Your task to perform on an android device: turn off notifications settings in the gmail app Image 0: 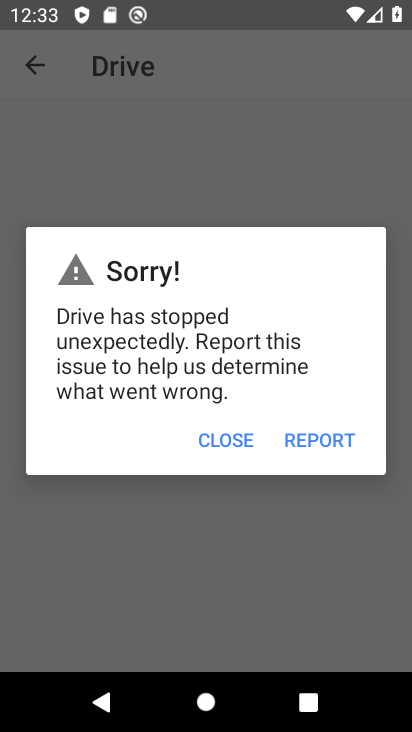
Step 0: press home button
Your task to perform on an android device: turn off notifications settings in the gmail app Image 1: 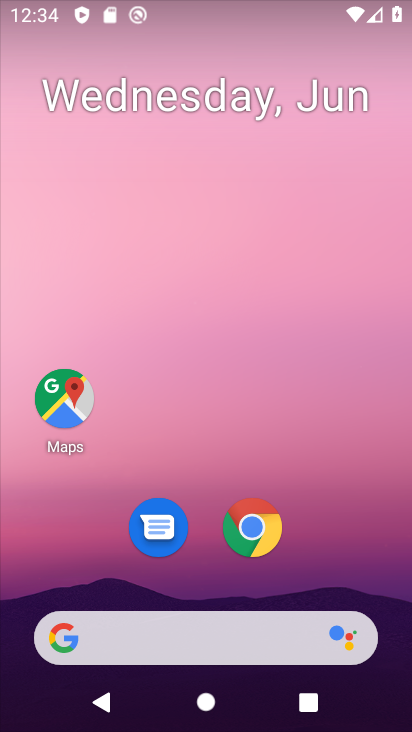
Step 1: drag from (191, 623) to (158, 104)
Your task to perform on an android device: turn off notifications settings in the gmail app Image 2: 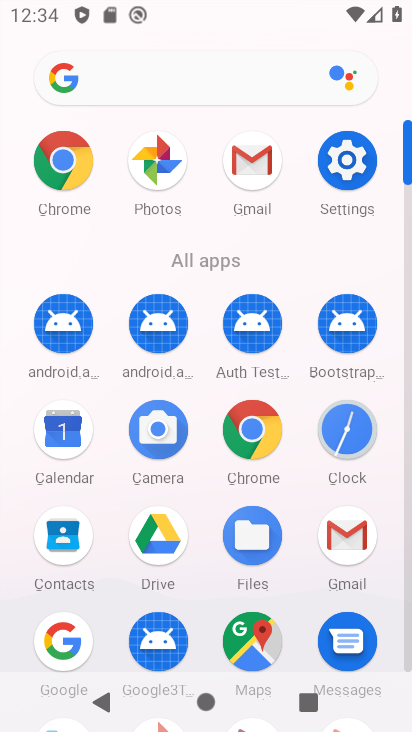
Step 2: click (253, 149)
Your task to perform on an android device: turn off notifications settings in the gmail app Image 3: 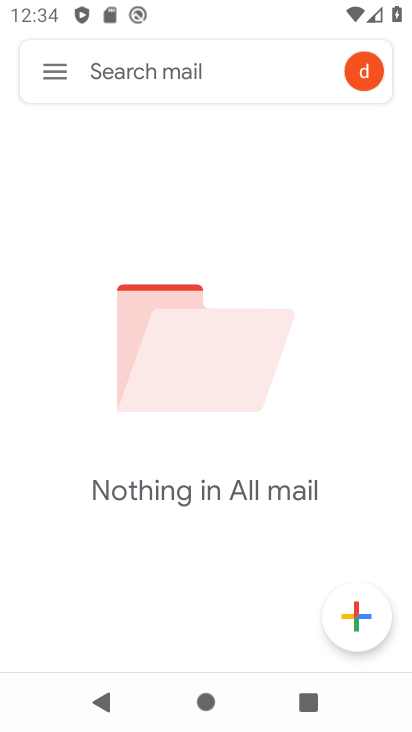
Step 3: click (48, 83)
Your task to perform on an android device: turn off notifications settings in the gmail app Image 4: 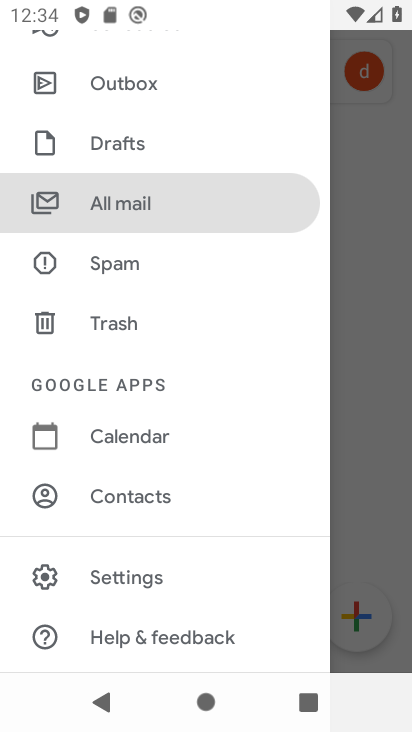
Step 4: click (126, 567)
Your task to perform on an android device: turn off notifications settings in the gmail app Image 5: 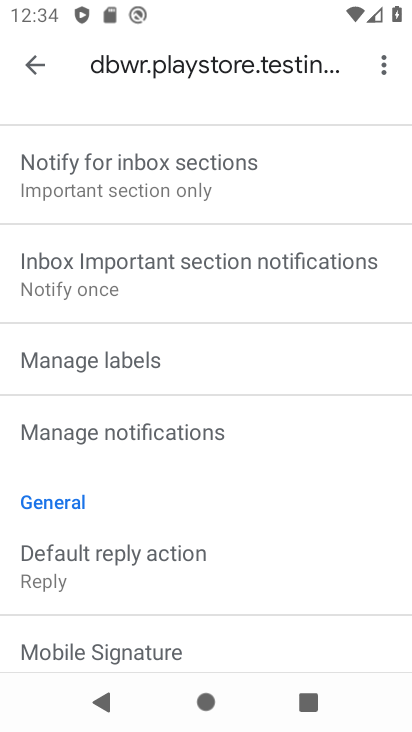
Step 5: click (154, 427)
Your task to perform on an android device: turn off notifications settings in the gmail app Image 6: 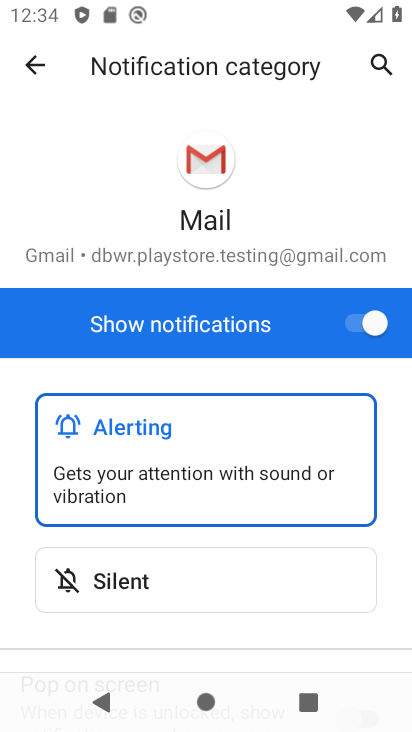
Step 6: click (385, 325)
Your task to perform on an android device: turn off notifications settings in the gmail app Image 7: 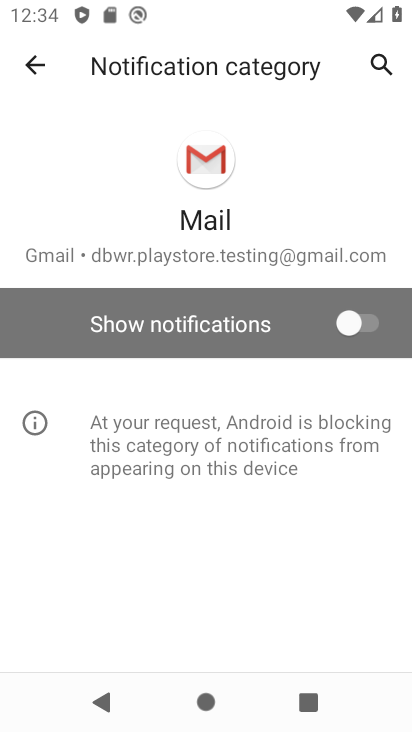
Step 7: task complete